Your task to perform on an android device: allow cookies in the chrome app Image 0: 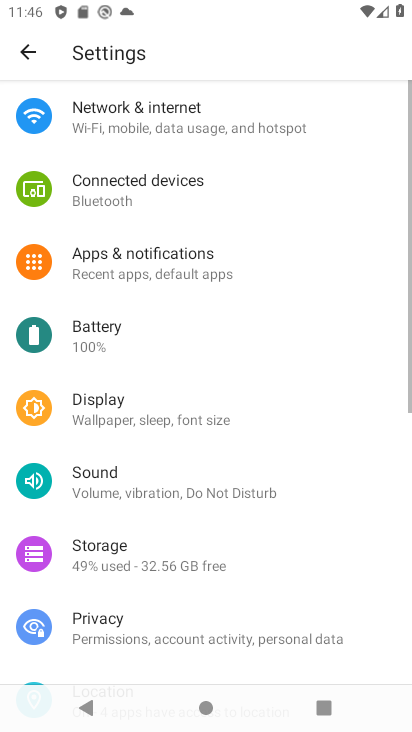
Step 0: press home button
Your task to perform on an android device: allow cookies in the chrome app Image 1: 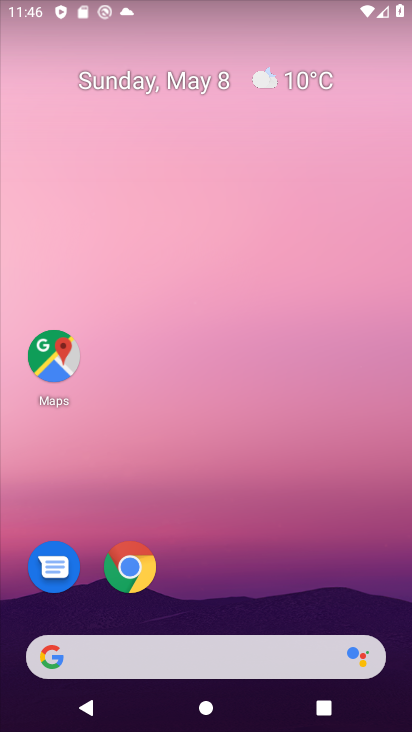
Step 1: drag from (226, 649) to (215, 158)
Your task to perform on an android device: allow cookies in the chrome app Image 2: 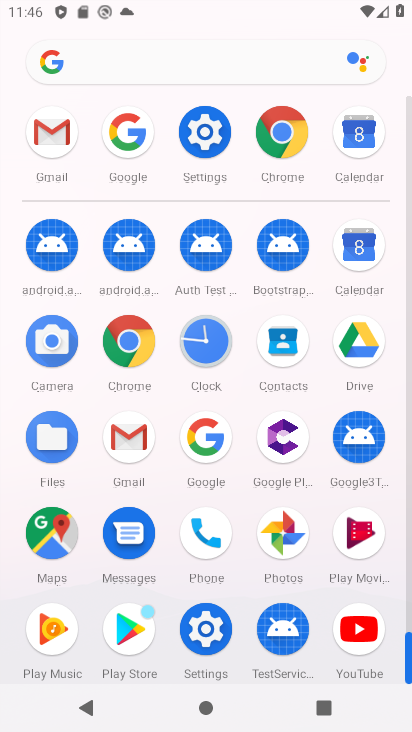
Step 2: click (301, 161)
Your task to perform on an android device: allow cookies in the chrome app Image 3: 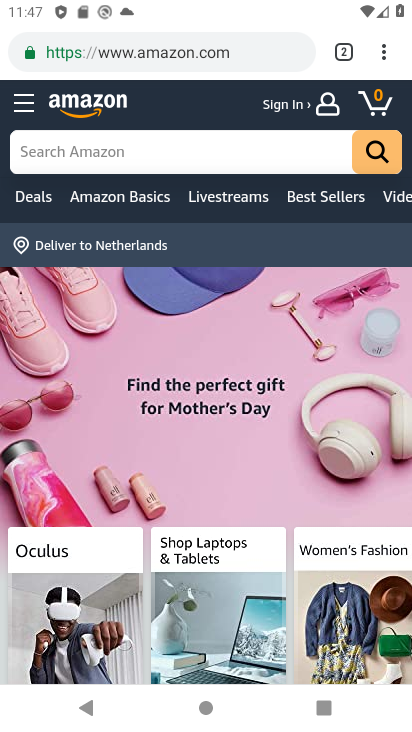
Step 3: click (387, 47)
Your task to perform on an android device: allow cookies in the chrome app Image 4: 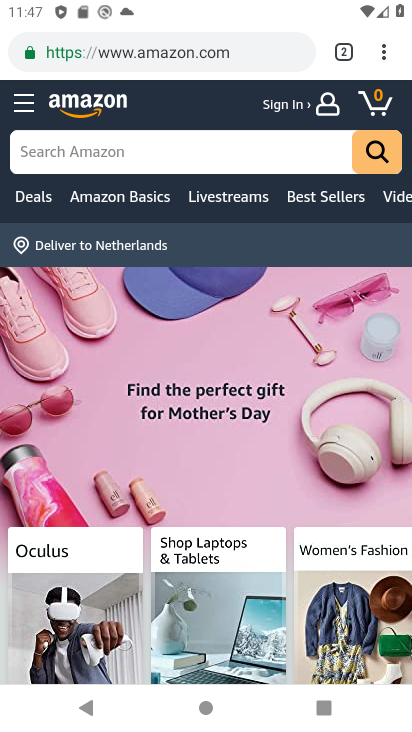
Step 4: click (386, 48)
Your task to perform on an android device: allow cookies in the chrome app Image 5: 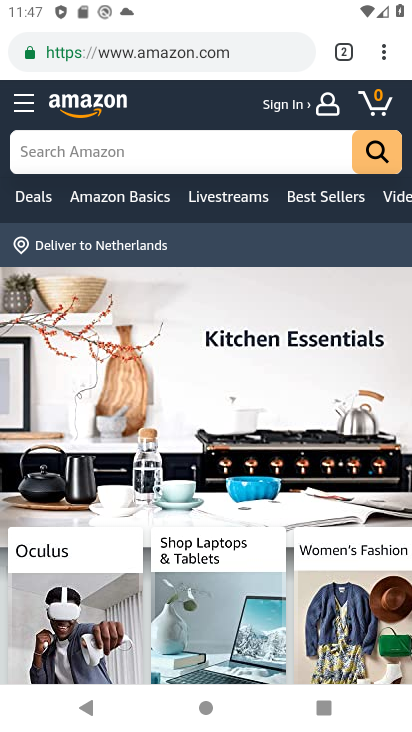
Step 5: click (390, 57)
Your task to perform on an android device: allow cookies in the chrome app Image 6: 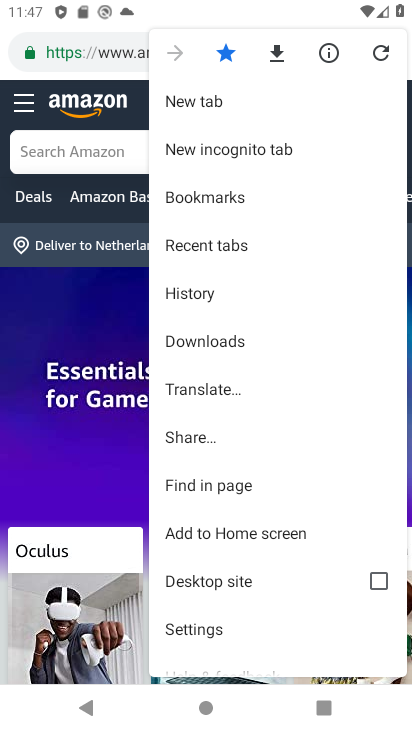
Step 6: drag from (235, 546) to (276, 169)
Your task to perform on an android device: allow cookies in the chrome app Image 7: 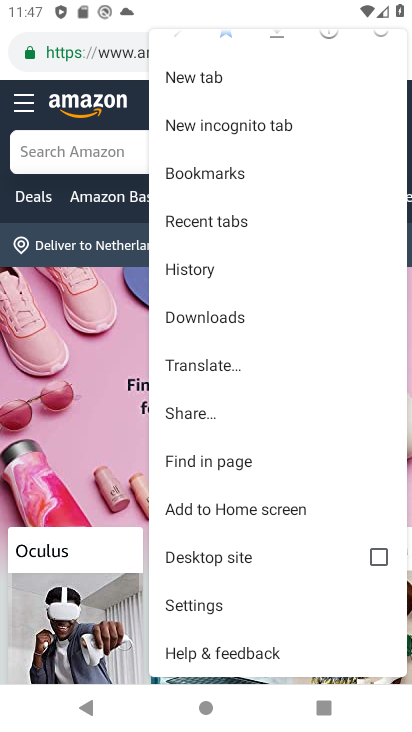
Step 7: click (204, 597)
Your task to perform on an android device: allow cookies in the chrome app Image 8: 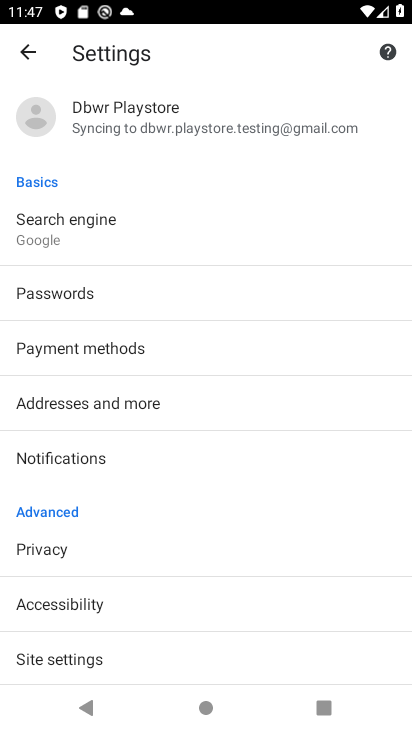
Step 8: drag from (106, 619) to (166, 237)
Your task to perform on an android device: allow cookies in the chrome app Image 9: 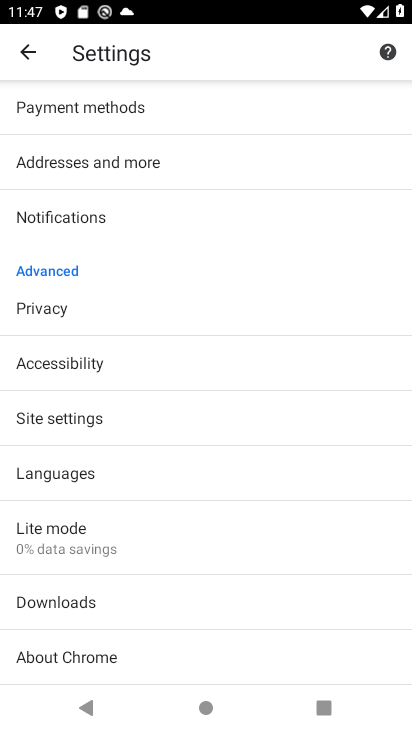
Step 9: drag from (150, 555) to (197, 289)
Your task to perform on an android device: allow cookies in the chrome app Image 10: 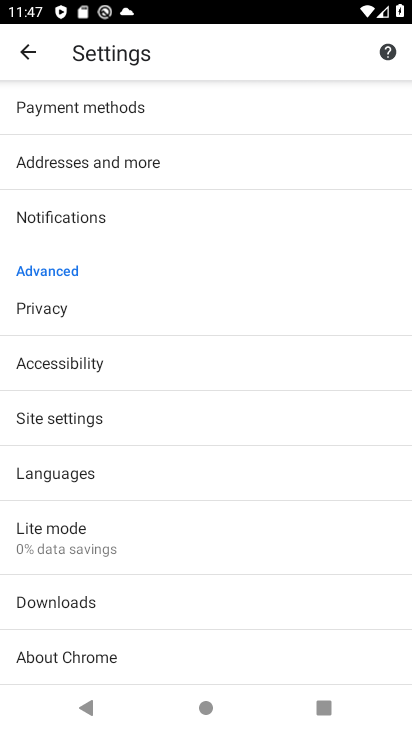
Step 10: drag from (96, 573) to (132, 339)
Your task to perform on an android device: allow cookies in the chrome app Image 11: 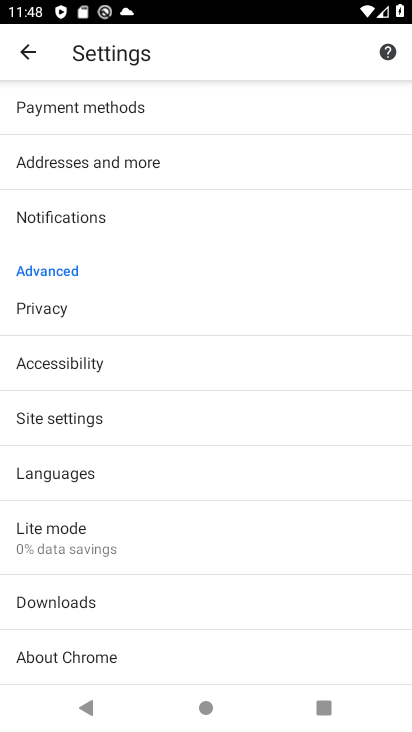
Step 11: drag from (159, 529) to (156, 436)
Your task to perform on an android device: allow cookies in the chrome app Image 12: 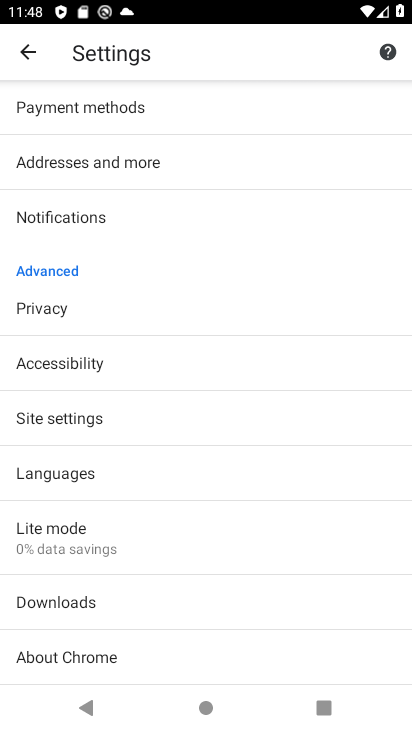
Step 12: click (80, 408)
Your task to perform on an android device: allow cookies in the chrome app Image 13: 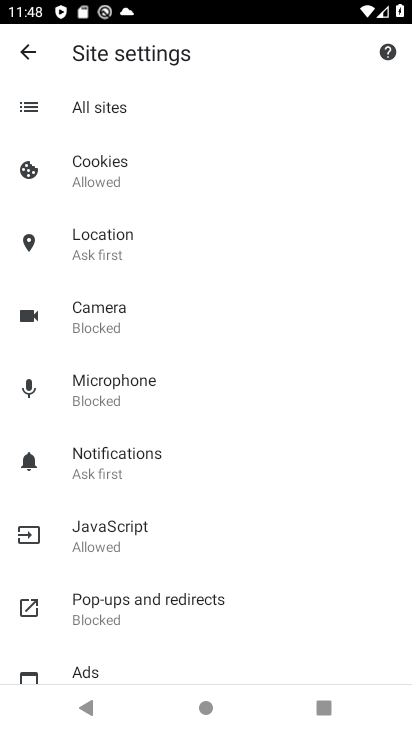
Step 13: click (160, 183)
Your task to perform on an android device: allow cookies in the chrome app Image 14: 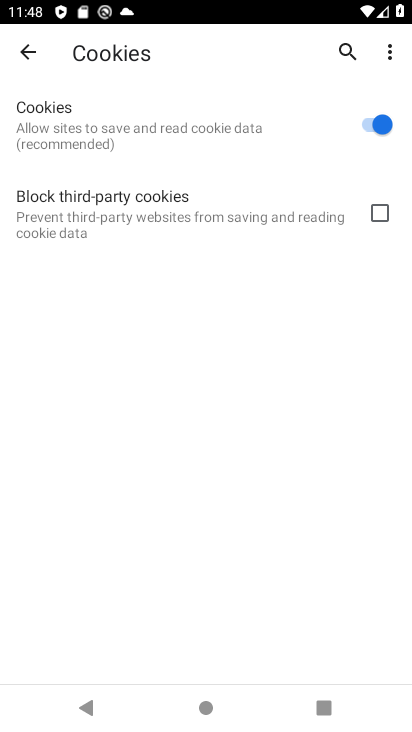
Step 14: task complete